Your task to perform on an android device: Show me the alarms in the clock app Image 0: 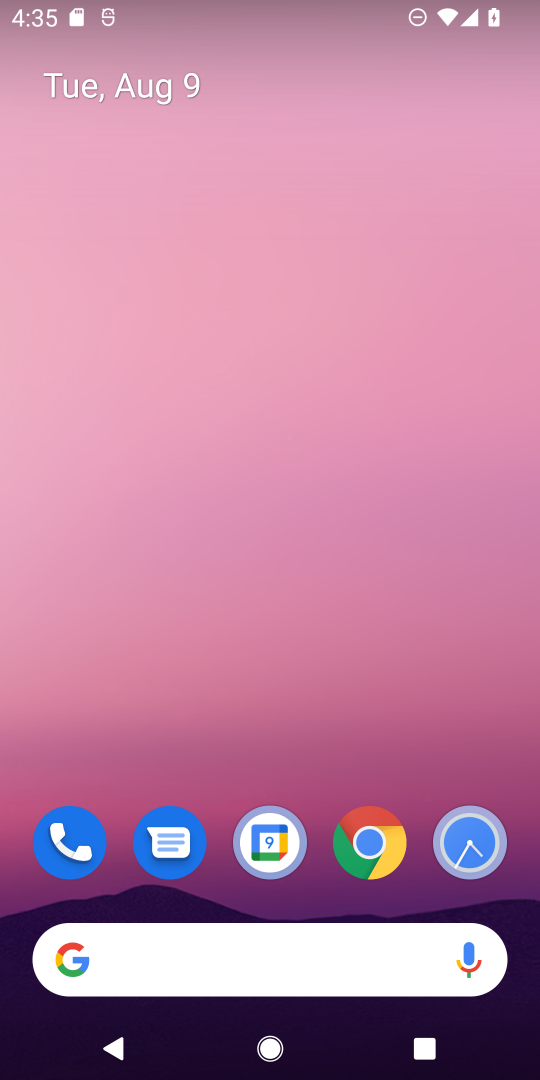
Step 0: drag from (248, 947) to (329, 60)
Your task to perform on an android device: Show me the alarms in the clock app Image 1: 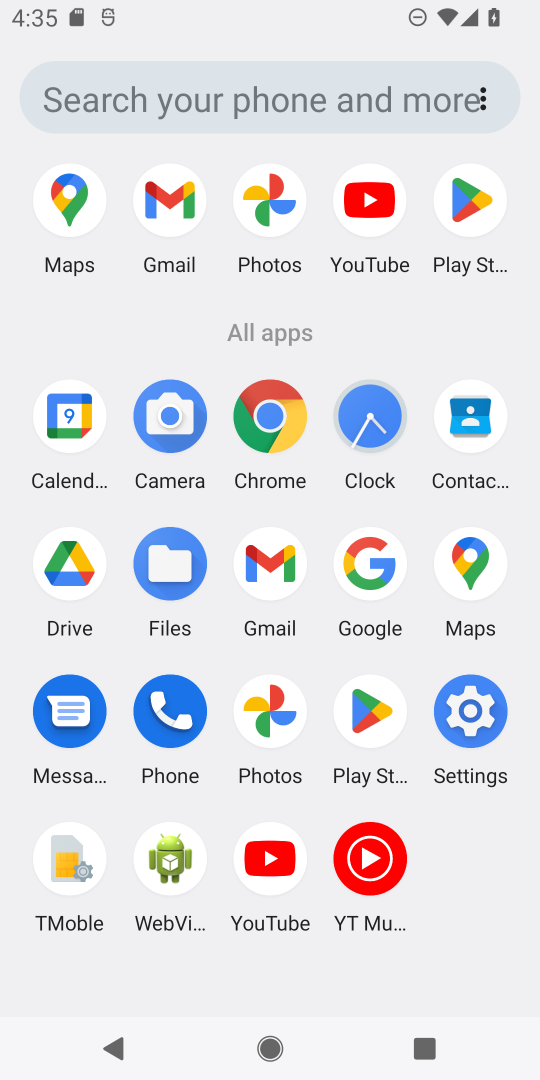
Step 1: click (360, 423)
Your task to perform on an android device: Show me the alarms in the clock app Image 2: 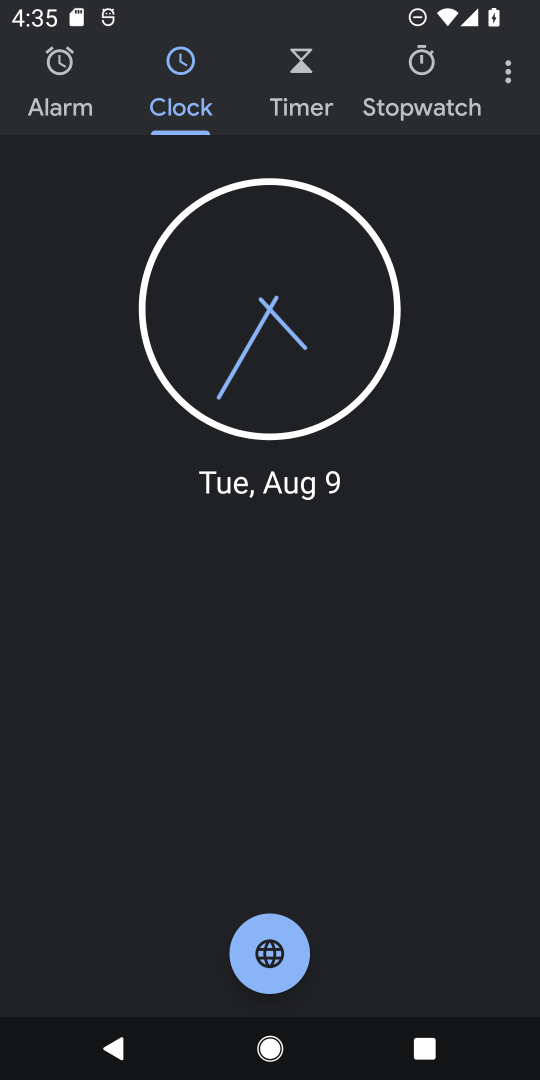
Step 2: click (71, 75)
Your task to perform on an android device: Show me the alarms in the clock app Image 3: 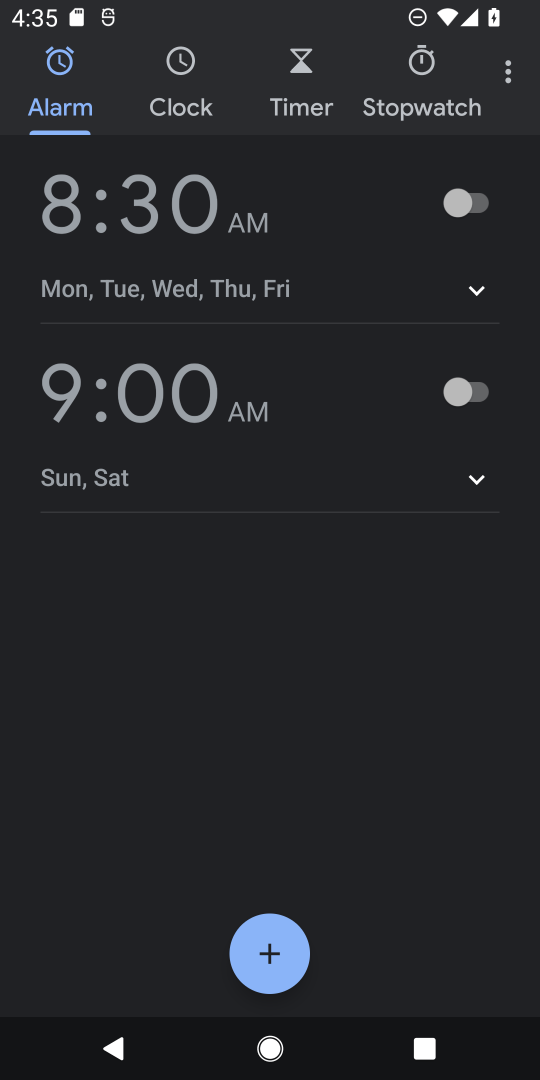
Step 3: task complete